Your task to perform on an android device: Open battery settings Image 0: 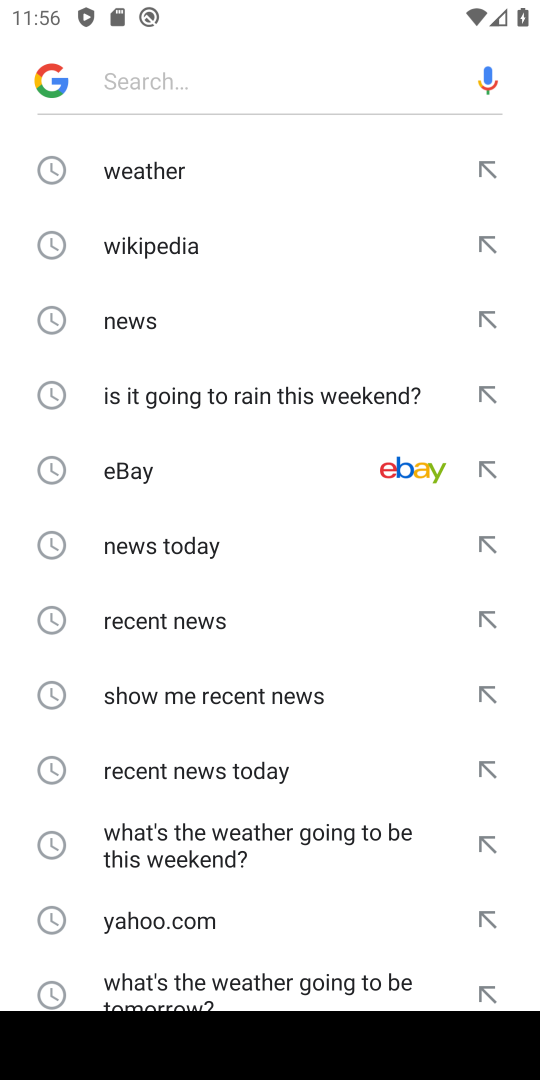
Step 0: press back button
Your task to perform on an android device: Open battery settings Image 1: 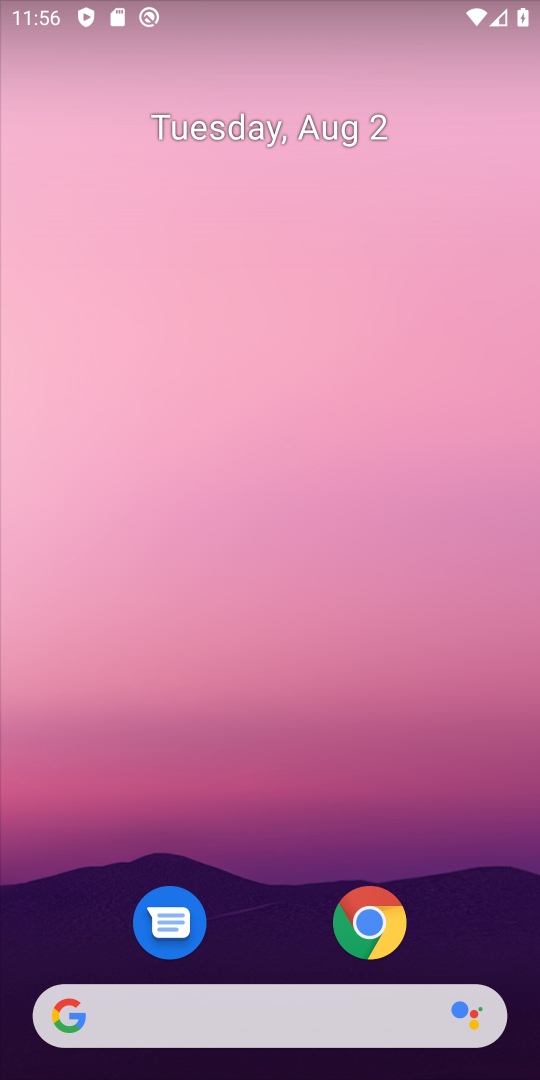
Step 1: drag from (480, 938) to (273, 38)
Your task to perform on an android device: Open battery settings Image 2: 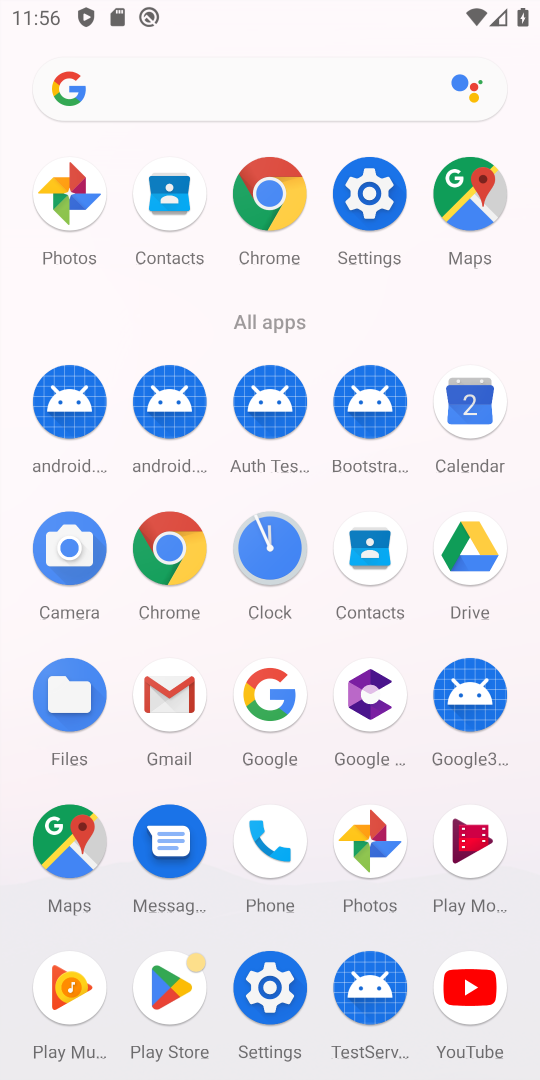
Step 2: click (372, 202)
Your task to perform on an android device: Open battery settings Image 3: 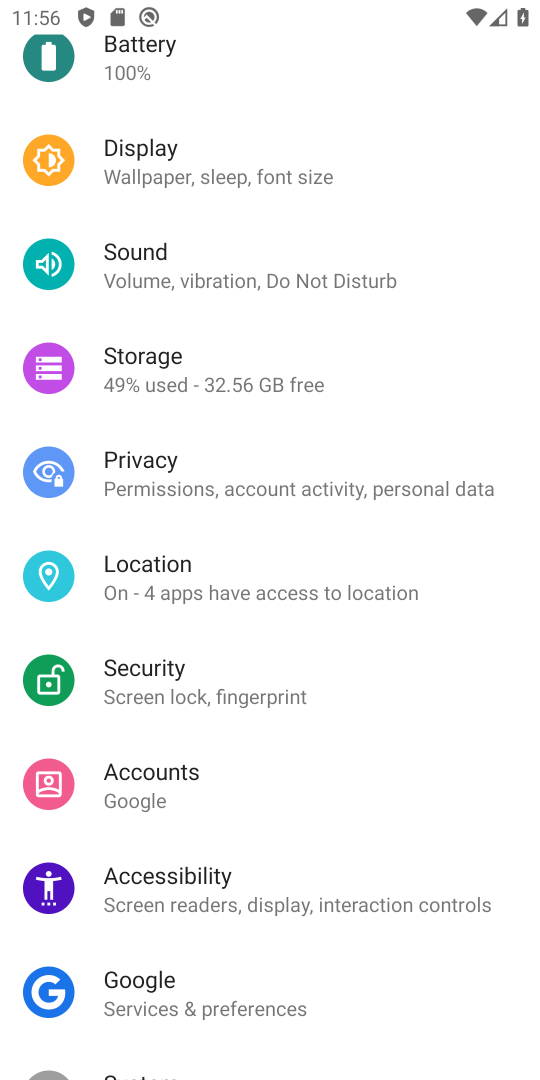
Step 3: click (197, 64)
Your task to perform on an android device: Open battery settings Image 4: 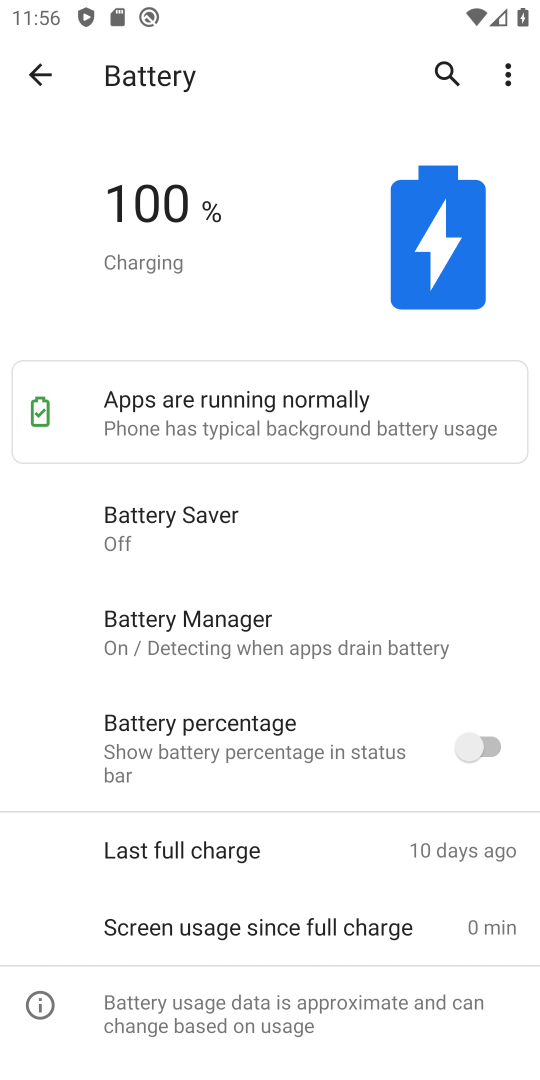
Step 4: task complete